Your task to perform on an android device: Open the Play Movies app and select the watchlist tab. Image 0: 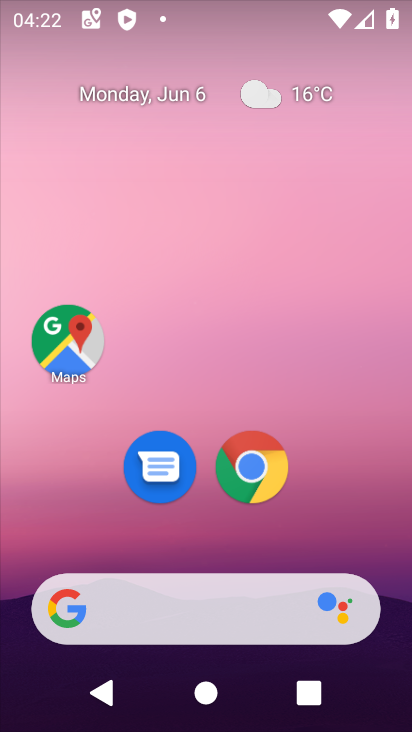
Step 0: drag from (209, 546) to (268, 0)
Your task to perform on an android device: Open the Play Movies app and select the watchlist tab. Image 1: 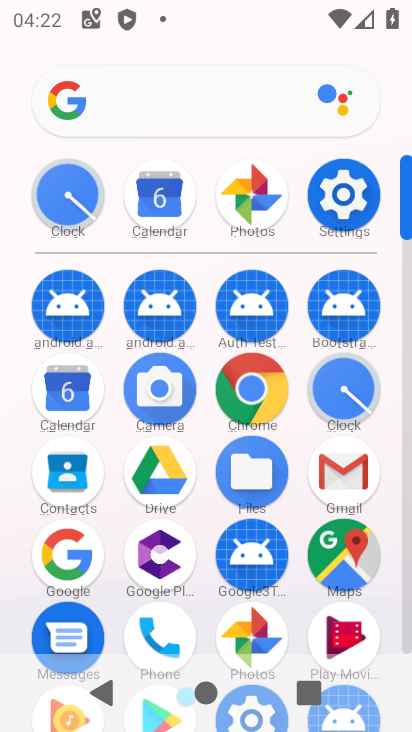
Step 1: click (343, 632)
Your task to perform on an android device: Open the Play Movies app and select the watchlist tab. Image 2: 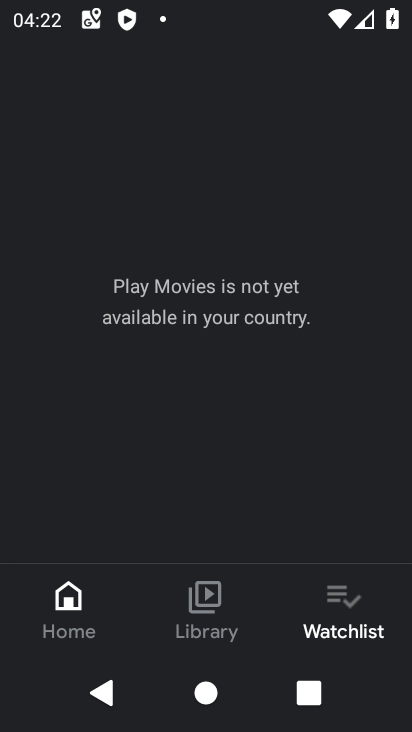
Step 2: task complete